Your task to perform on an android device: Go to Google maps Image 0: 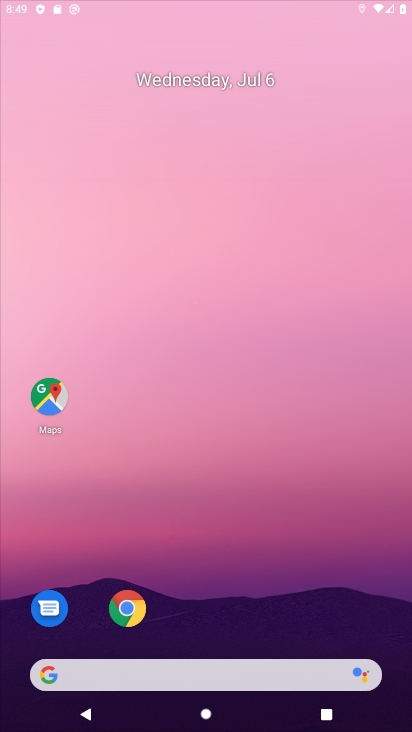
Step 0: drag from (304, 619) to (180, 104)
Your task to perform on an android device: Go to Google maps Image 1: 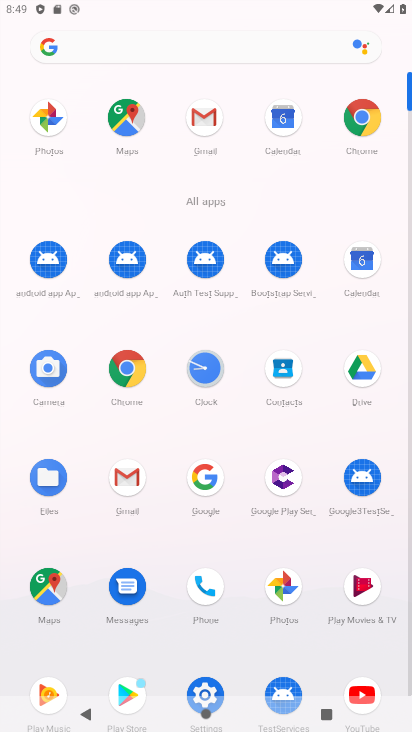
Step 1: click (117, 125)
Your task to perform on an android device: Go to Google maps Image 2: 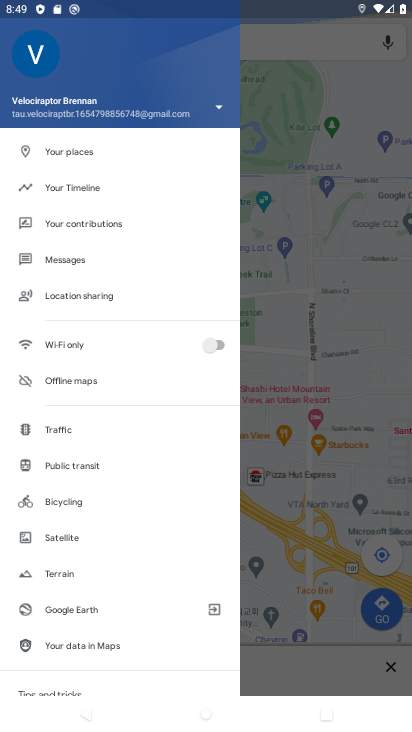
Step 2: click (313, 266)
Your task to perform on an android device: Go to Google maps Image 3: 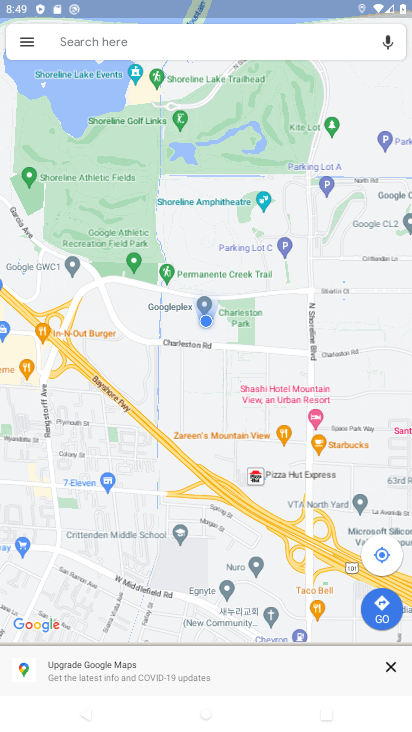
Step 3: task complete